Your task to perform on an android device: Open the calendar and show me this week's events? Image 0: 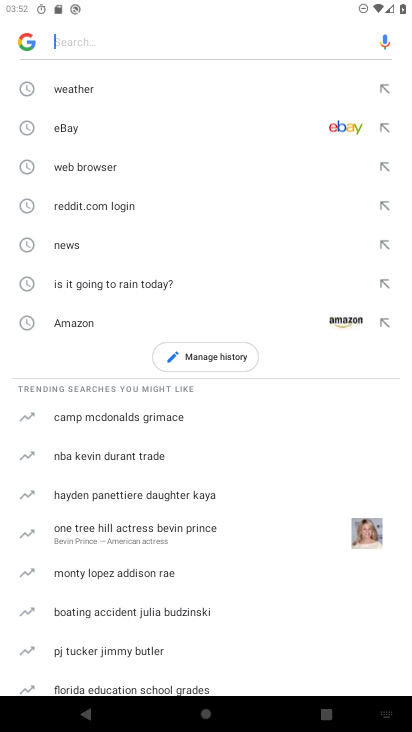
Step 0: press home button
Your task to perform on an android device: Open the calendar and show me this week's events? Image 1: 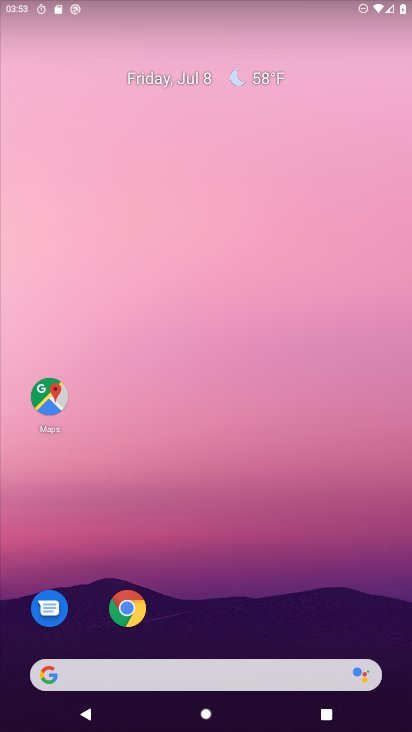
Step 1: drag from (252, 727) to (242, 118)
Your task to perform on an android device: Open the calendar and show me this week's events? Image 2: 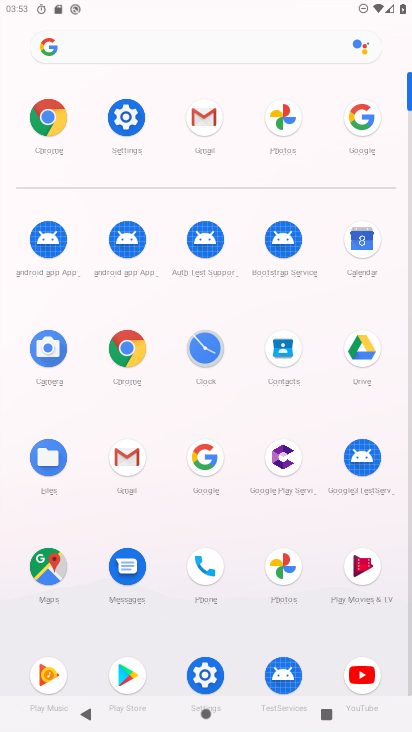
Step 2: click (364, 236)
Your task to perform on an android device: Open the calendar and show me this week's events? Image 3: 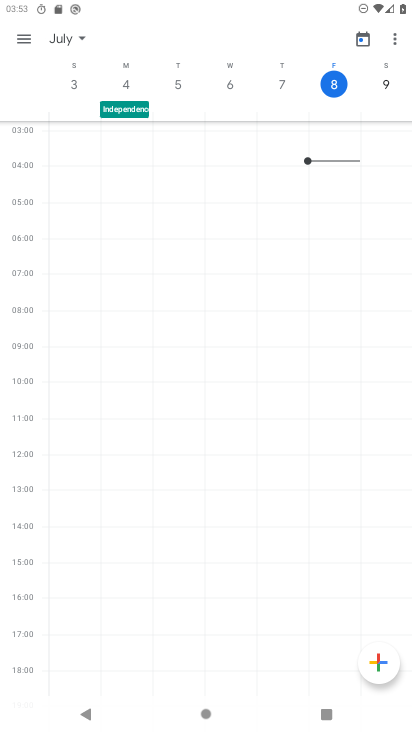
Step 3: click (28, 41)
Your task to perform on an android device: Open the calendar and show me this week's events? Image 4: 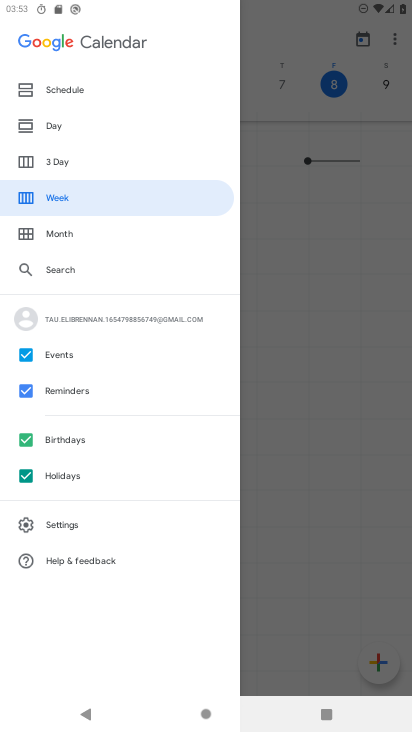
Step 4: click (30, 472)
Your task to perform on an android device: Open the calendar and show me this week's events? Image 5: 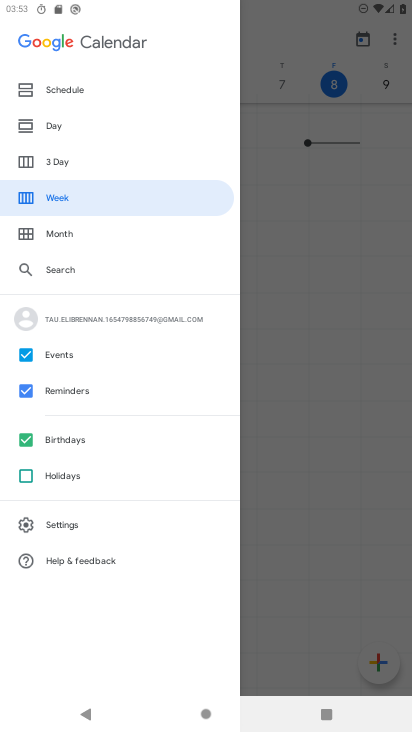
Step 5: click (25, 432)
Your task to perform on an android device: Open the calendar and show me this week's events? Image 6: 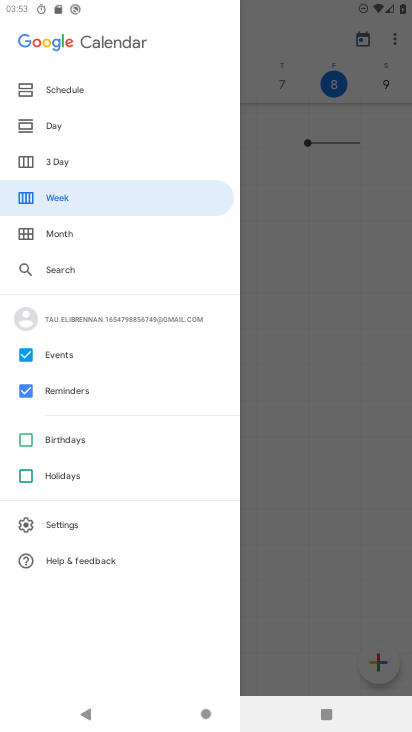
Step 6: click (26, 390)
Your task to perform on an android device: Open the calendar and show me this week's events? Image 7: 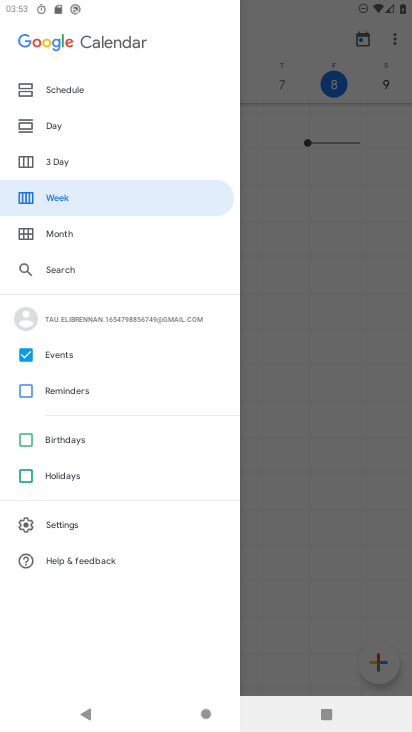
Step 7: click (53, 194)
Your task to perform on an android device: Open the calendar and show me this week's events? Image 8: 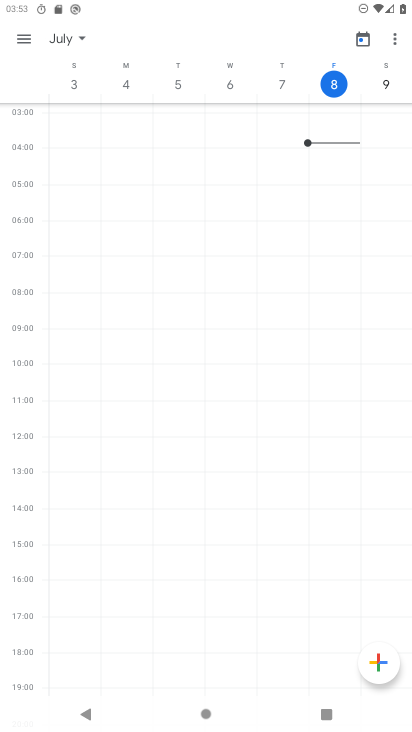
Step 8: task complete